Your task to perform on an android device: move a message to another label in the gmail app Image 0: 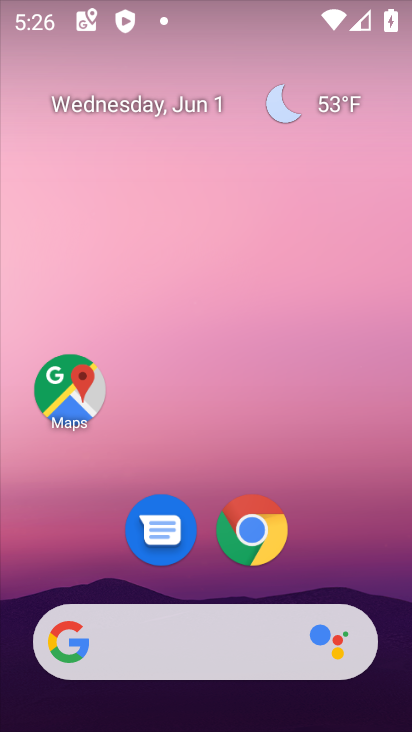
Step 0: drag from (201, 581) to (197, 272)
Your task to perform on an android device: move a message to another label in the gmail app Image 1: 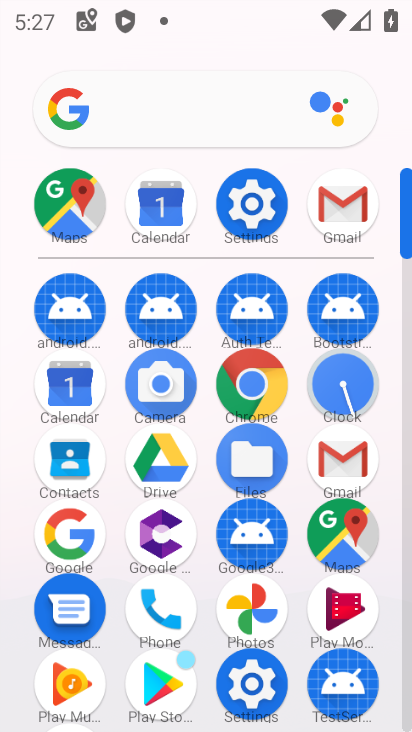
Step 1: click (345, 206)
Your task to perform on an android device: move a message to another label in the gmail app Image 2: 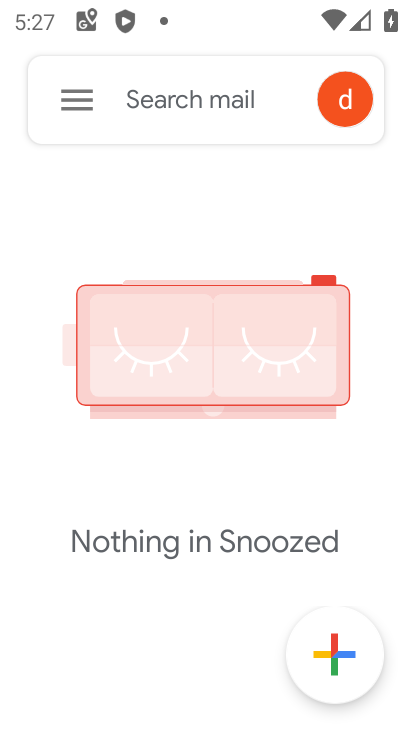
Step 2: click (69, 96)
Your task to perform on an android device: move a message to another label in the gmail app Image 3: 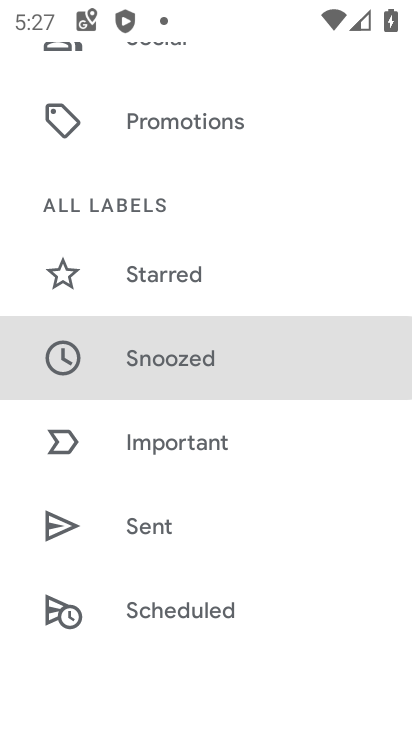
Step 3: drag from (219, 563) to (219, 366)
Your task to perform on an android device: move a message to another label in the gmail app Image 4: 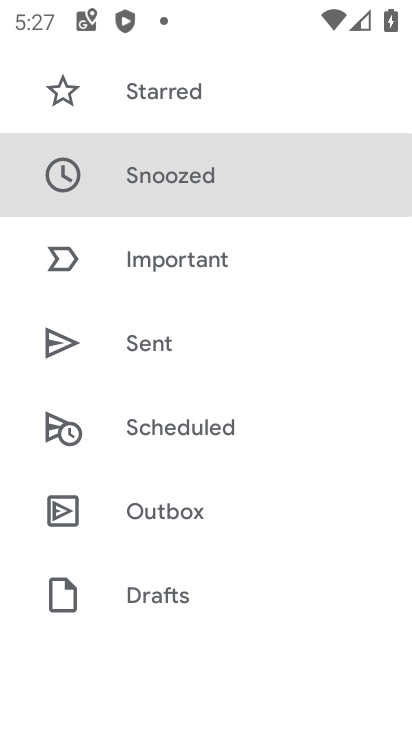
Step 4: drag from (206, 567) to (225, 372)
Your task to perform on an android device: move a message to another label in the gmail app Image 5: 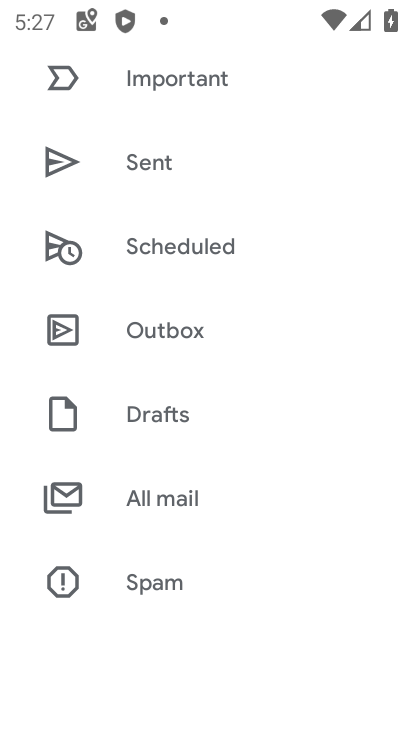
Step 5: click (157, 499)
Your task to perform on an android device: move a message to another label in the gmail app Image 6: 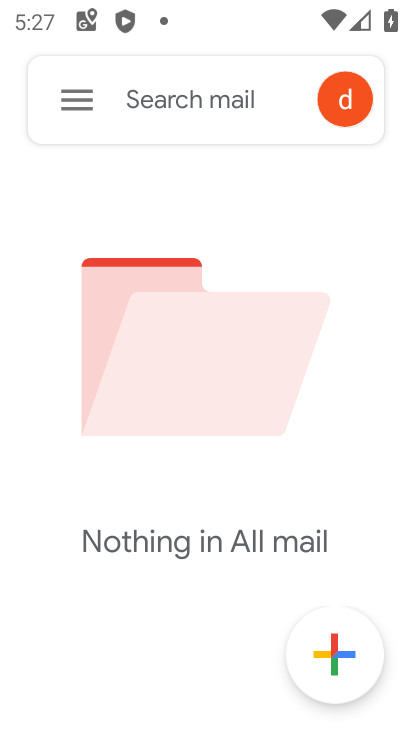
Step 6: task complete